Your task to perform on an android device: Find coffee shops on Maps Image 0: 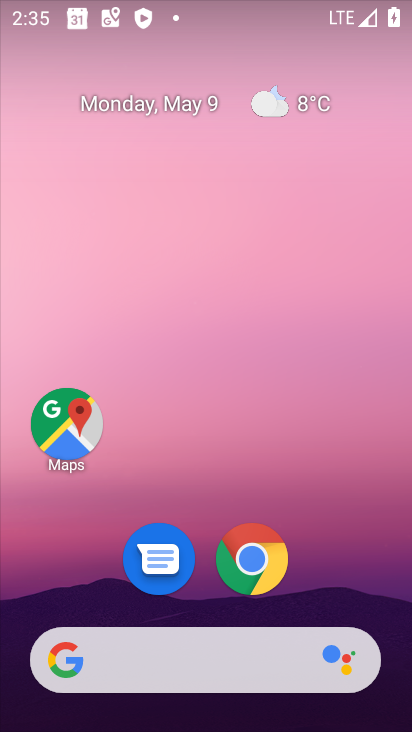
Step 0: click (71, 431)
Your task to perform on an android device: Find coffee shops on Maps Image 1: 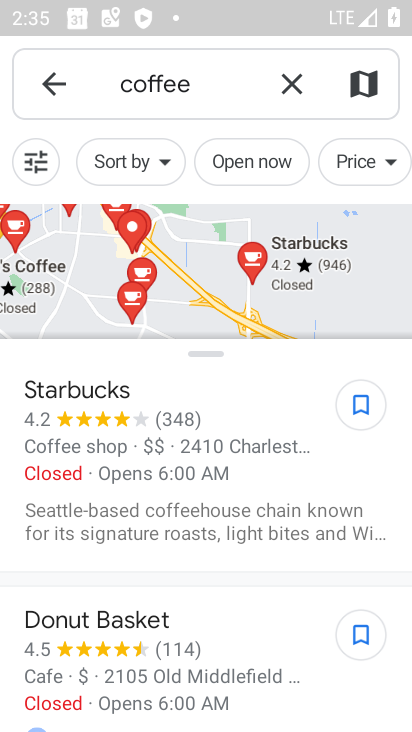
Step 1: task complete